Your task to perform on an android device: turn on improve location accuracy Image 0: 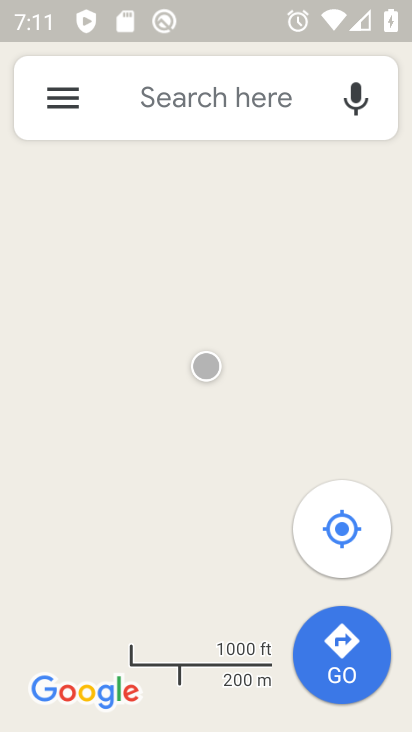
Step 0: press home button
Your task to perform on an android device: turn on improve location accuracy Image 1: 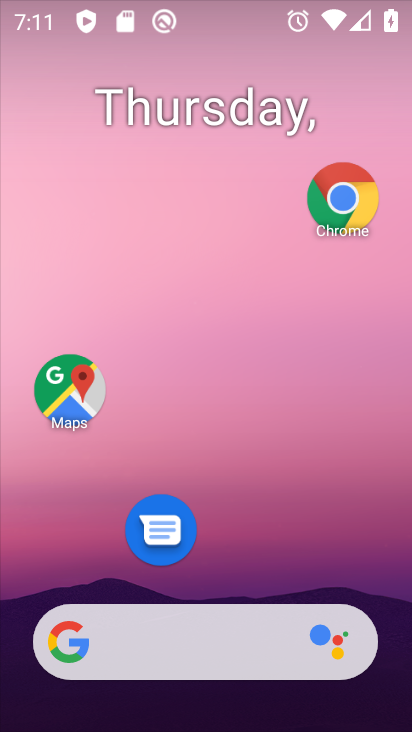
Step 1: drag from (199, 704) to (260, 129)
Your task to perform on an android device: turn on improve location accuracy Image 2: 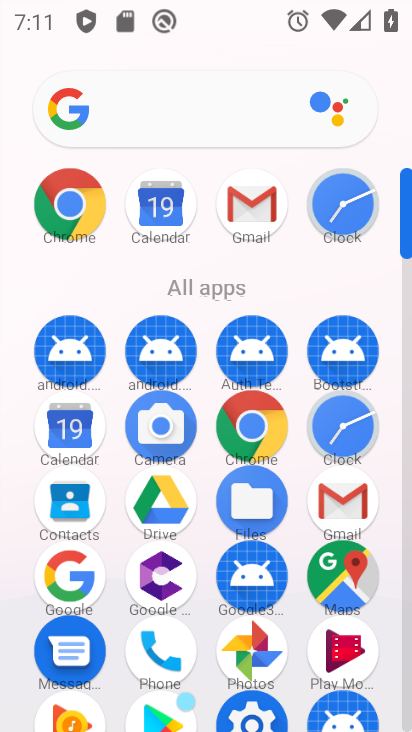
Step 2: drag from (196, 528) to (235, 295)
Your task to perform on an android device: turn on improve location accuracy Image 3: 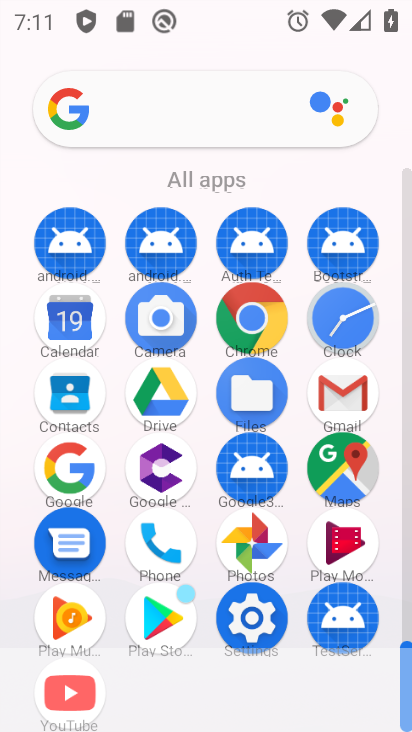
Step 3: click (255, 611)
Your task to perform on an android device: turn on improve location accuracy Image 4: 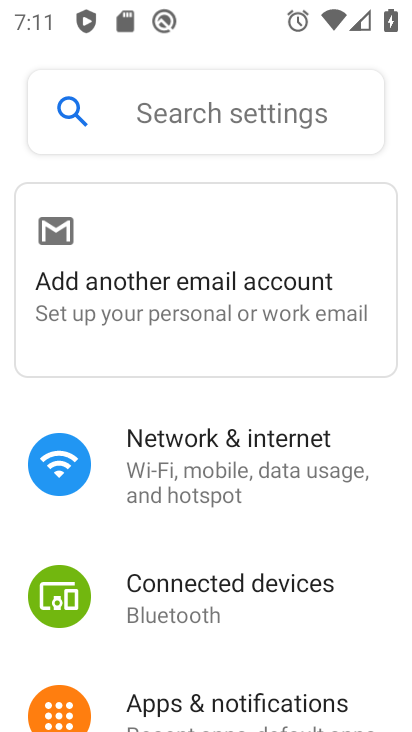
Step 4: click (188, 116)
Your task to perform on an android device: turn on improve location accuracy Image 5: 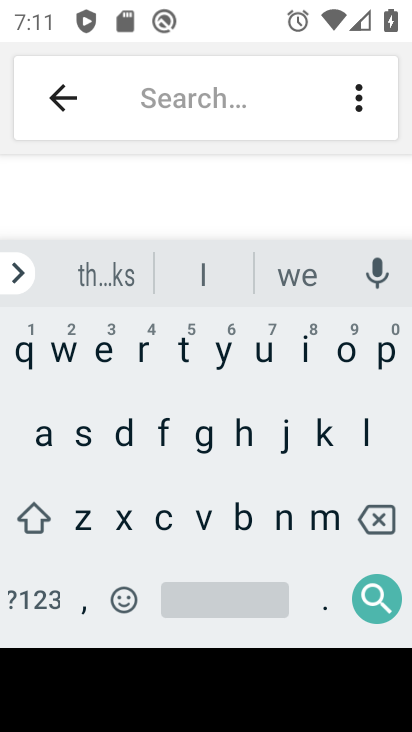
Step 5: click (369, 445)
Your task to perform on an android device: turn on improve location accuracy Image 6: 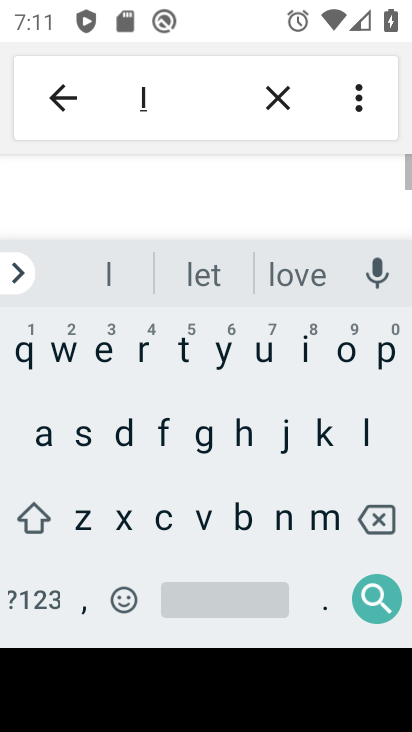
Step 6: click (333, 353)
Your task to perform on an android device: turn on improve location accuracy Image 7: 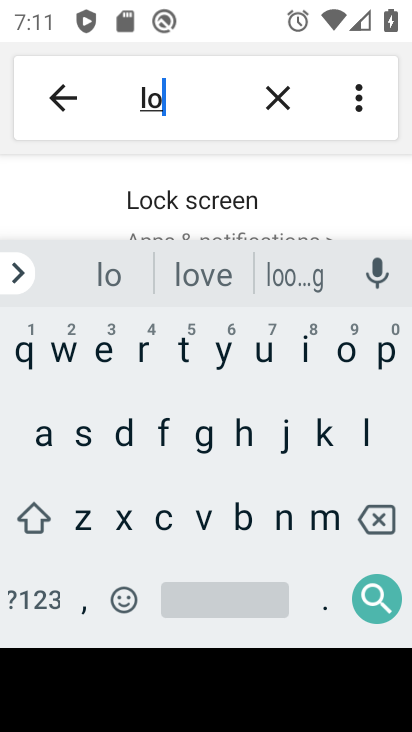
Step 7: click (168, 512)
Your task to perform on an android device: turn on improve location accuracy Image 8: 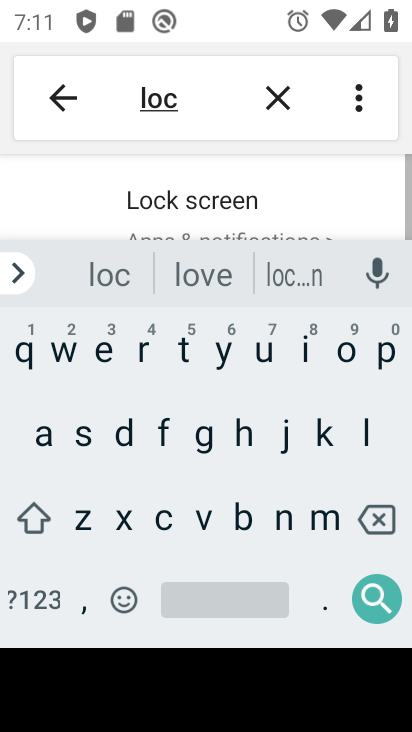
Step 8: click (48, 431)
Your task to perform on an android device: turn on improve location accuracy Image 9: 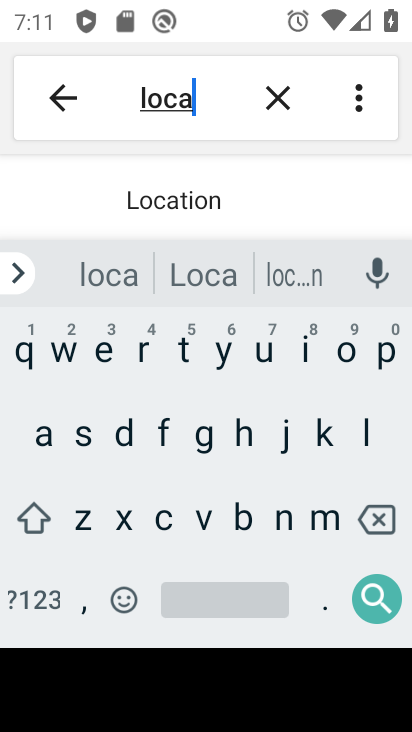
Step 9: press back button
Your task to perform on an android device: turn on improve location accuracy Image 10: 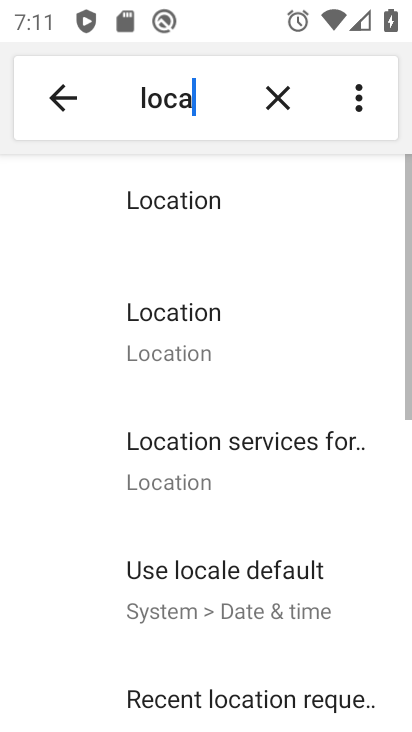
Step 10: click (169, 324)
Your task to perform on an android device: turn on improve location accuracy Image 11: 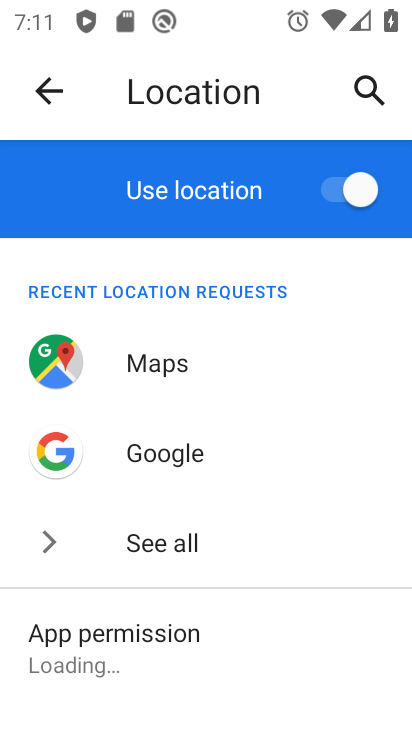
Step 11: drag from (184, 606) to (211, 255)
Your task to perform on an android device: turn on improve location accuracy Image 12: 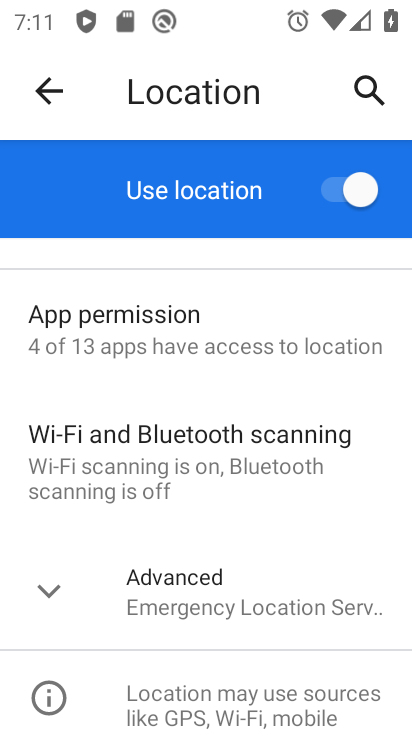
Step 12: click (57, 587)
Your task to perform on an android device: turn on improve location accuracy Image 13: 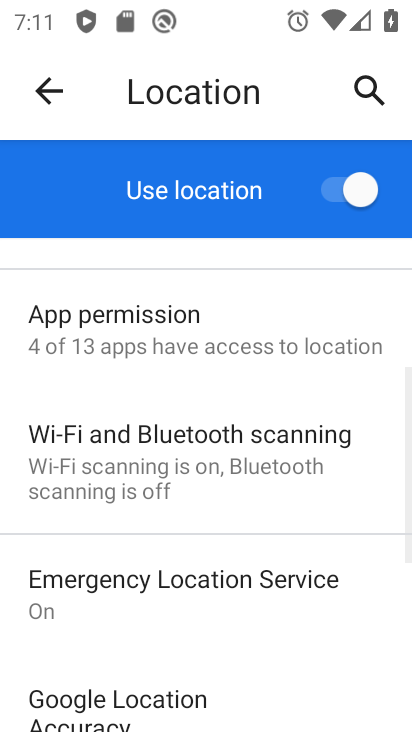
Step 13: drag from (175, 619) to (202, 488)
Your task to perform on an android device: turn on improve location accuracy Image 14: 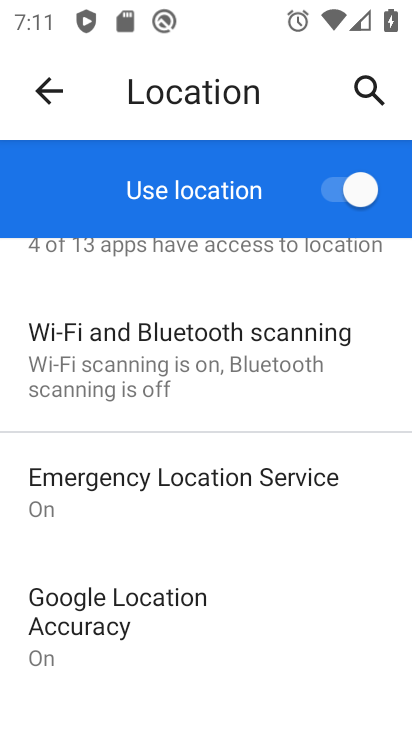
Step 14: click (143, 611)
Your task to perform on an android device: turn on improve location accuracy Image 15: 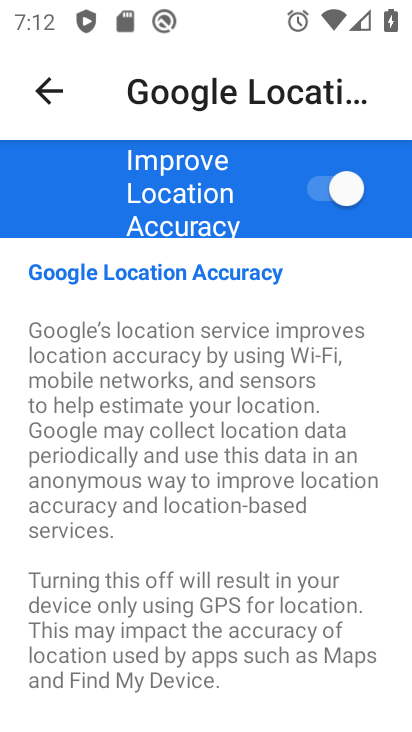
Step 15: click (332, 181)
Your task to perform on an android device: turn on improve location accuracy Image 16: 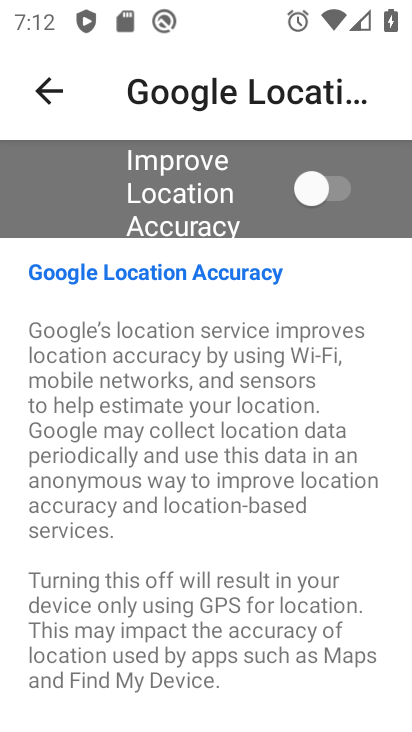
Step 16: click (329, 182)
Your task to perform on an android device: turn on improve location accuracy Image 17: 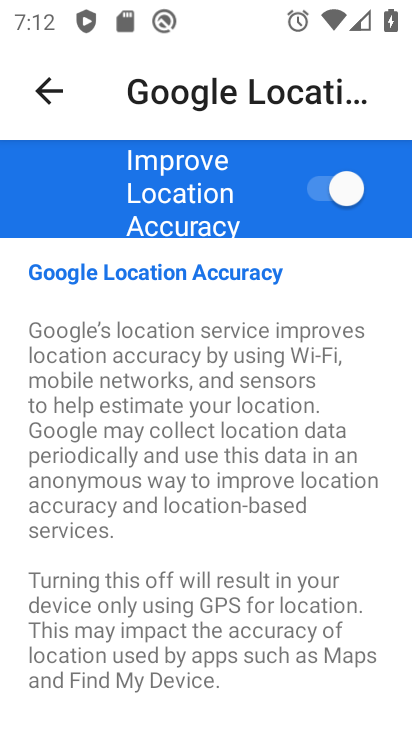
Step 17: task complete